Your task to perform on an android device: Is it going to rain this weekend? Image 0: 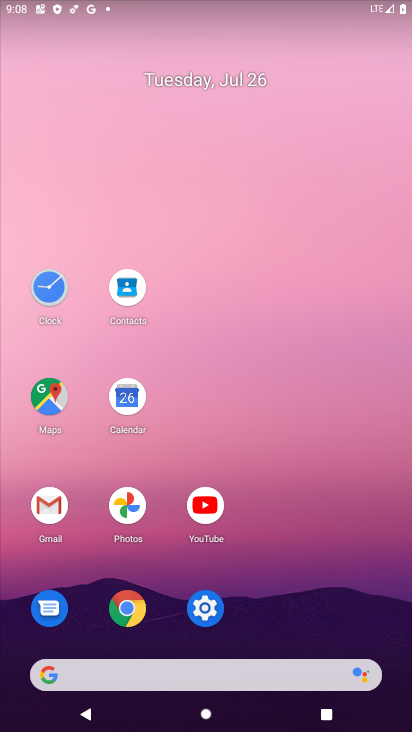
Step 0: click (181, 668)
Your task to perform on an android device: Is it going to rain this weekend? Image 1: 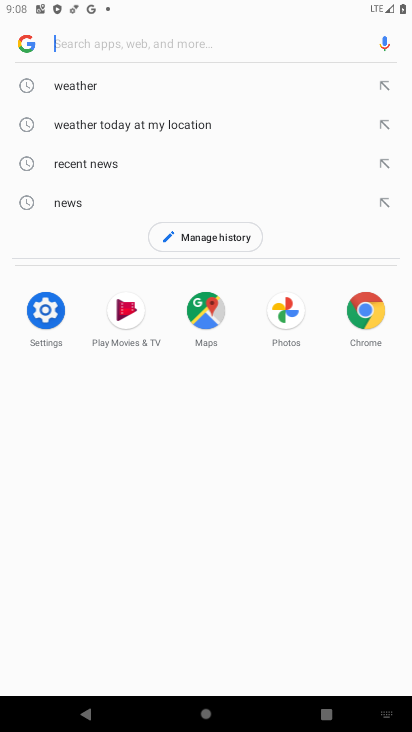
Step 1: click (70, 80)
Your task to perform on an android device: Is it going to rain this weekend? Image 2: 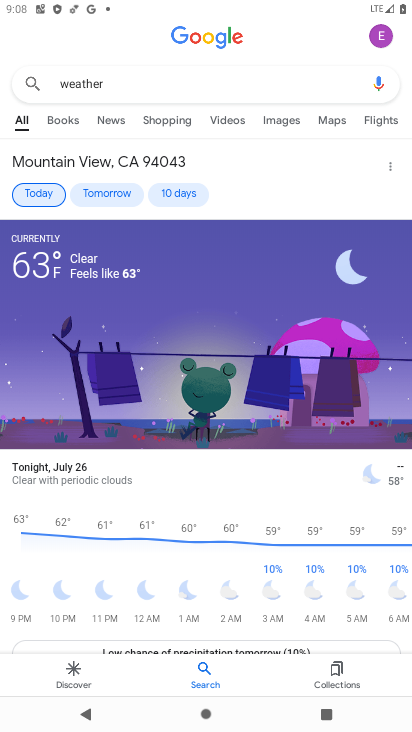
Step 2: click (177, 191)
Your task to perform on an android device: Is it going to rain this weekend? Image 3: 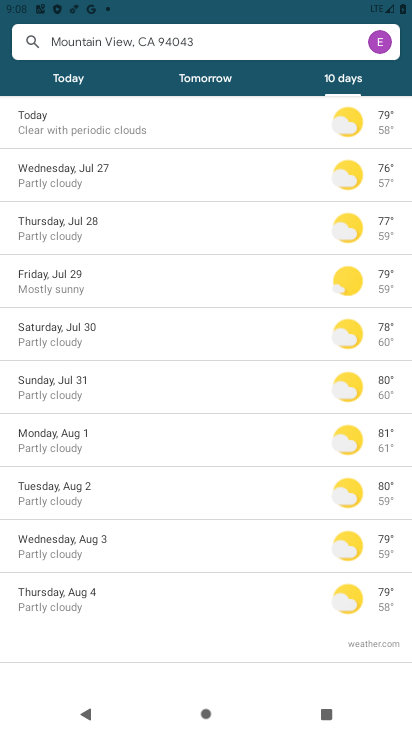
Step 3: task complete